Your task to perform on an android device: turn off improve location accuracy Image 0: 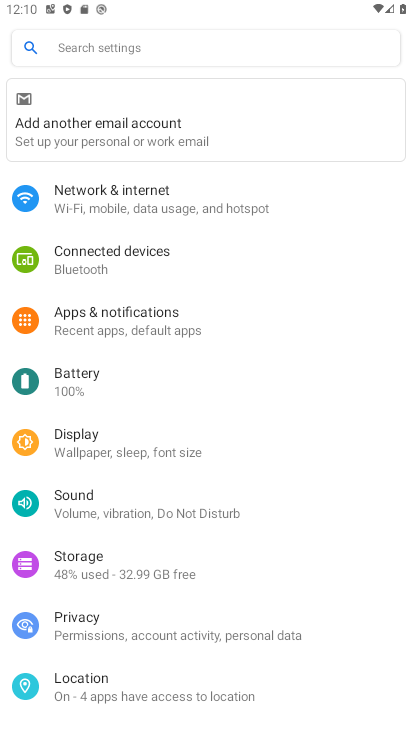
Step 0: click (88, 678)
Your task to perform on an android device: turn off improve location accuracy Image 1: 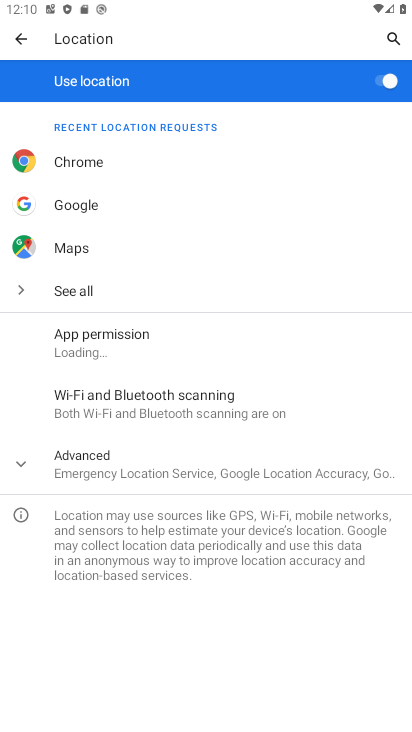
Step 1: click (134, 470)
Your task to perform on an android device: turn off improve location accuracy Image 2: 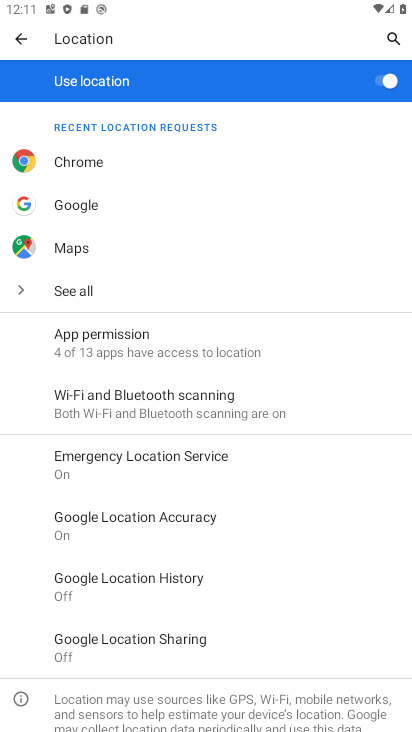
Step 2: click (162, 517)
Your task to perform on an android device: turn off improve location accuracy Image 3: 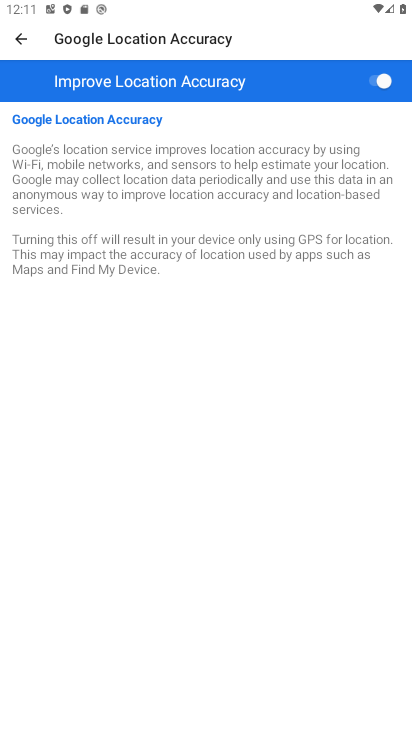
Step 3: click (374, 76)
Your task to perform on an android device: turn off improve location accuracy Image 4: 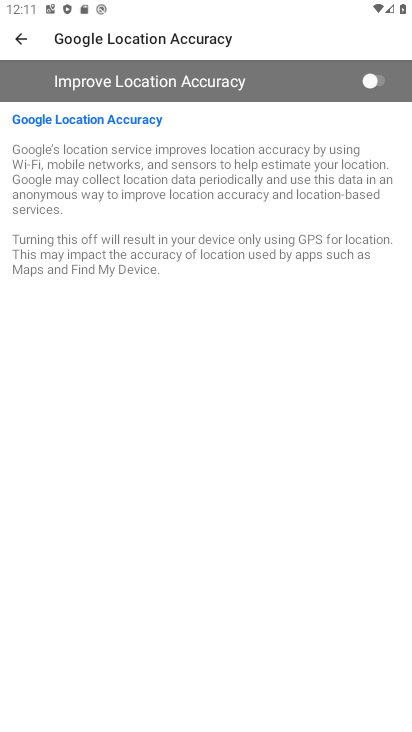
Step 4: task complete